Your task to perform on an android device: Search for Mexican restaurants on Maps Image 0: 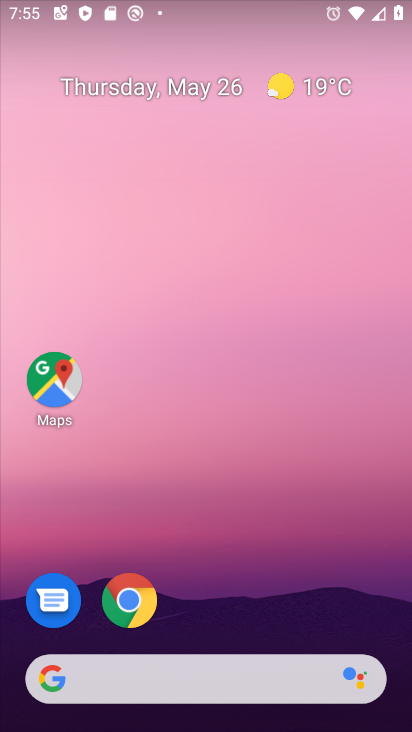
Step 0: press home button
Your task to perform on an android device: Search for Mexican restaurants on Maps Image 1: 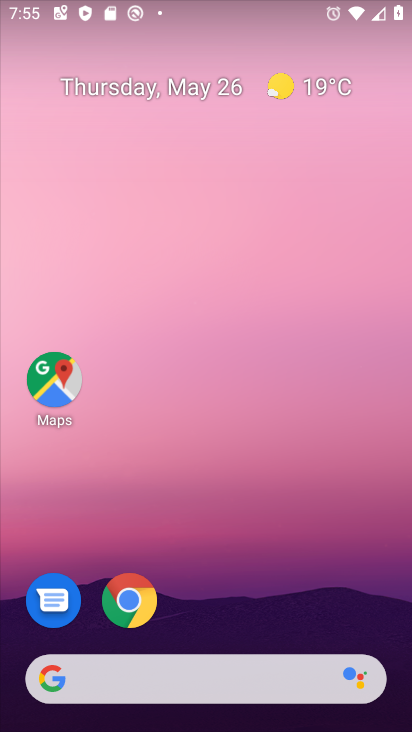
Step 1: click (48, 380)
Your task to perform on an android device: Search for Mexican restaurants on Maps Image 2: 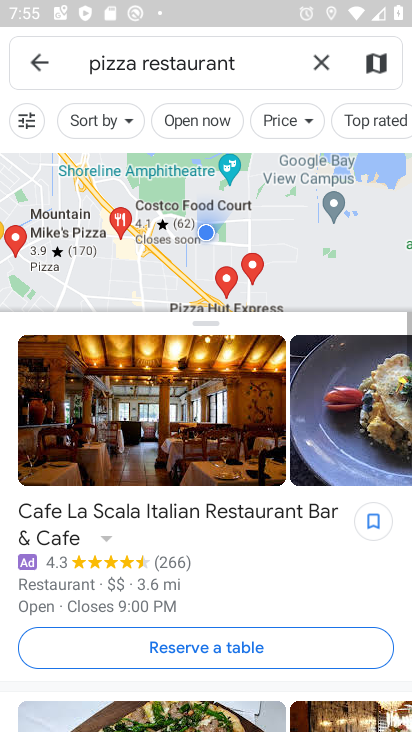
Step 2: click (315, 58)
Your task to perform on an android device: Search for Mexican restaurants on Maps Image 3: 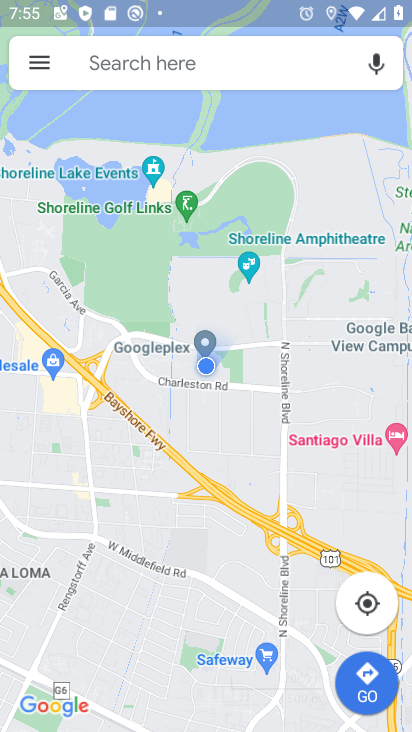
Step 3: click (176, 63)
Your task to perform on an android device: Search for Mexican restaurants on Maps Image 4: 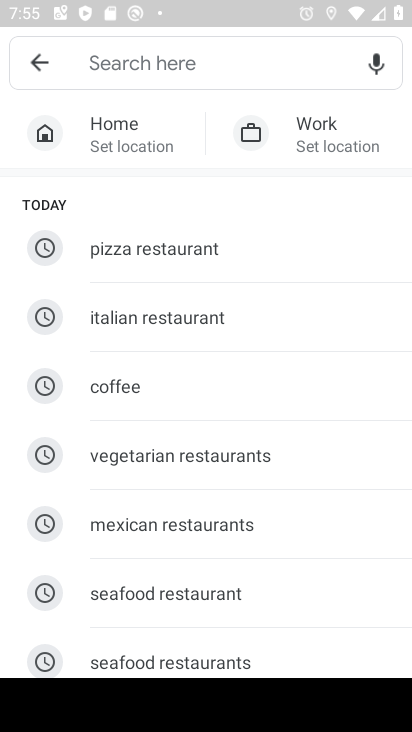
Step 4: click (171, 528)
Your task to perform on an android device: Search for Mexican restaurants on Maps Image 5: 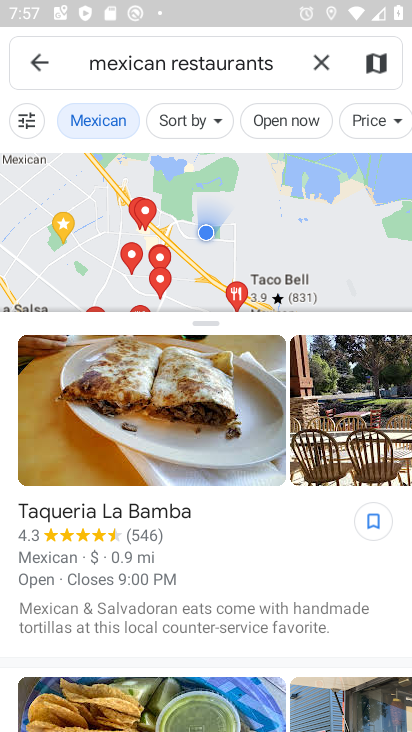
Step 5: task complete